Your task to perform on an android device: open app "Google Chrome" Image 0: 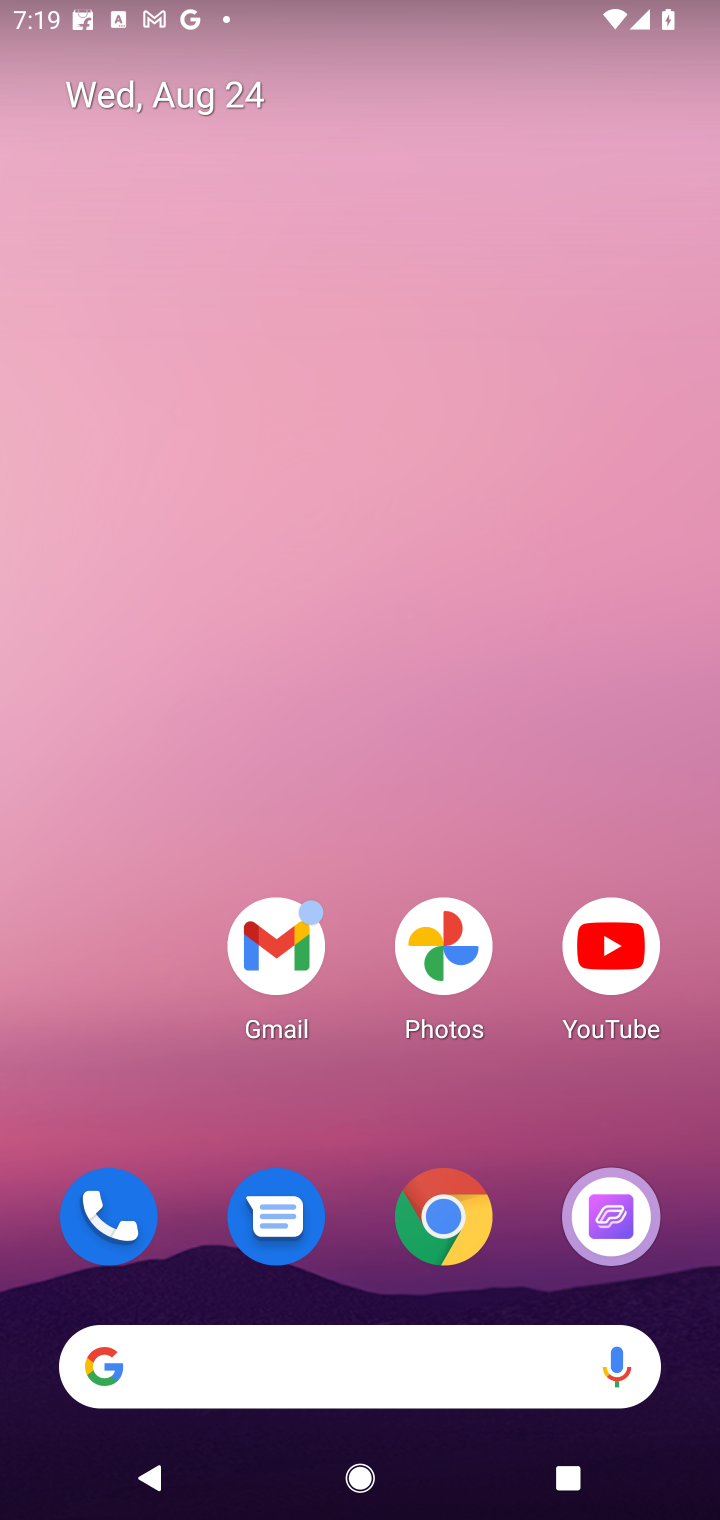
Step 0: click (452, 1222)
Your task to perform on an android device: open app "Google Chrome" Image 1: 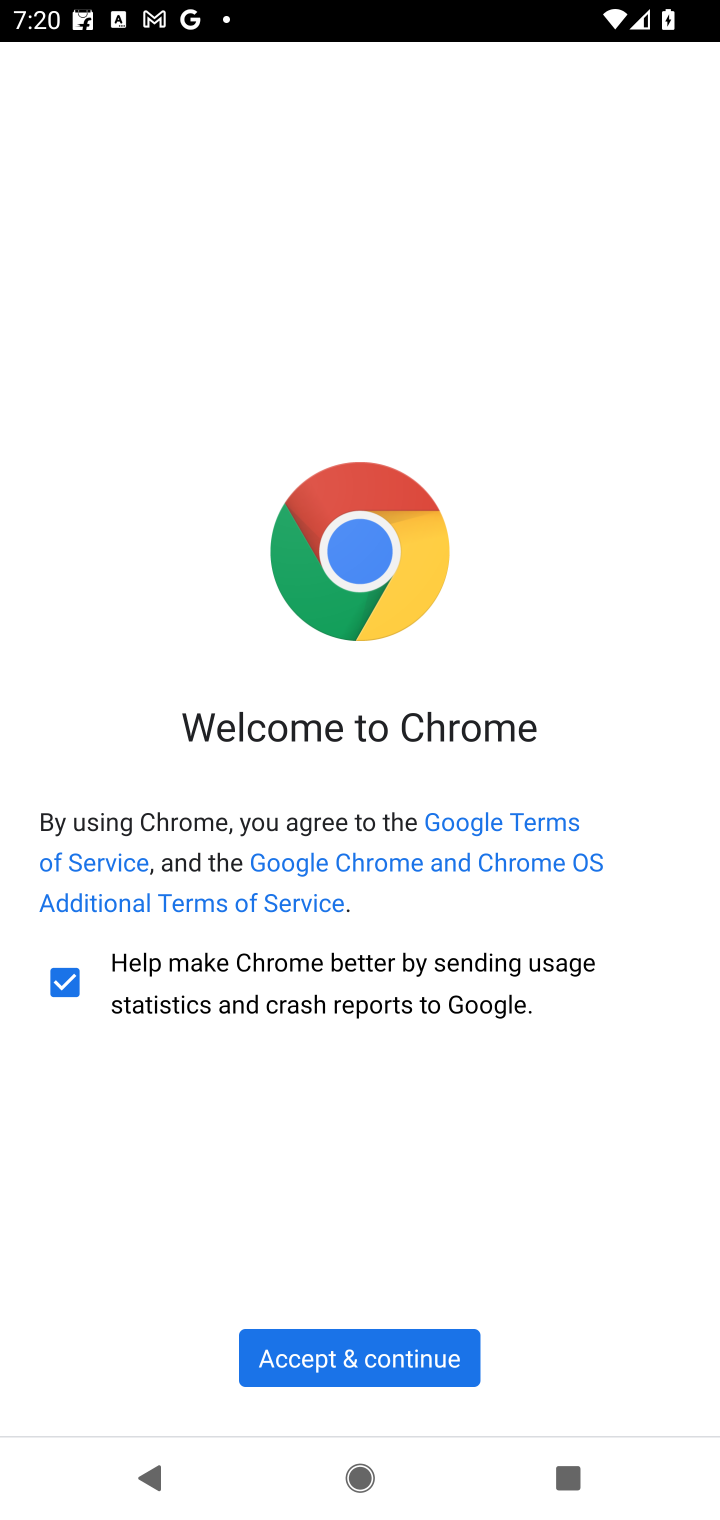
Step 1: task complete